Your task to perform on an android device: change timer sound Image 0: 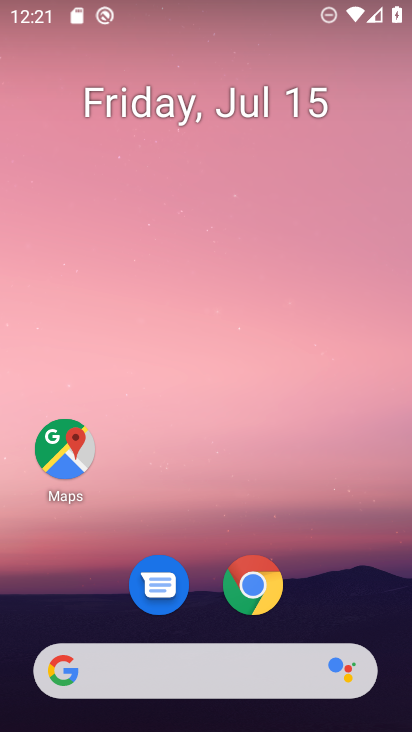
Step 0: drag from (230, 498) to (287, 32)
Your task to perform on an android device: change timer sound Image 1: 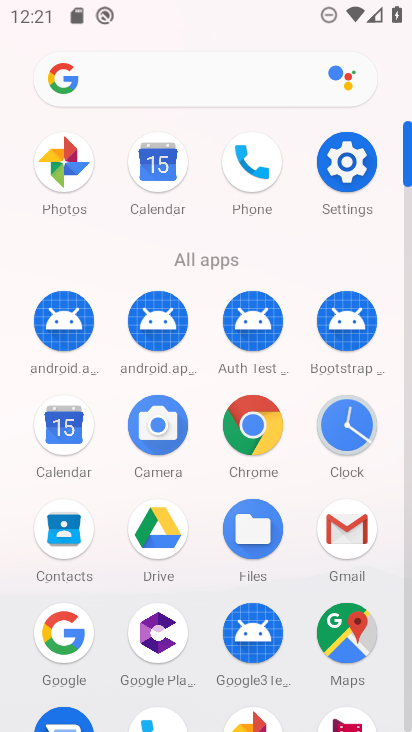
Step 1: click (345, 429)
Your task to perform on an android device: change timer sound Image 2: 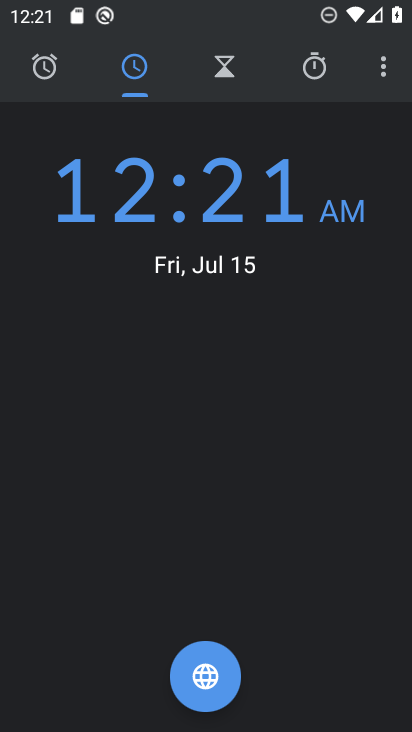
Step 2: click (381, 61)
Your task to perform on an android device: change timer sound Image 3: 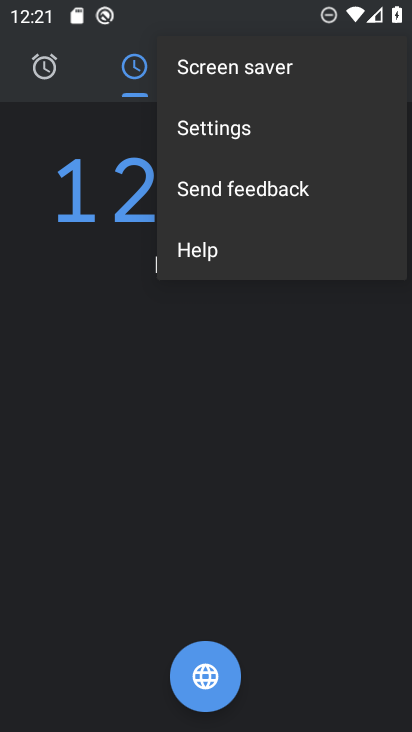
Step 3: click (239, 132)
Your task to perform on an android device: change timer sound Image 4: 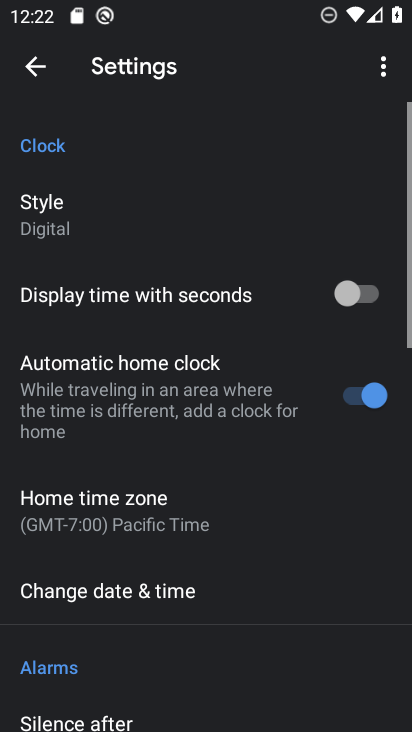
Step 4: drag from (266, 590) to (275, 58)
Your task to perform on an android device: change timer sound Image 5: 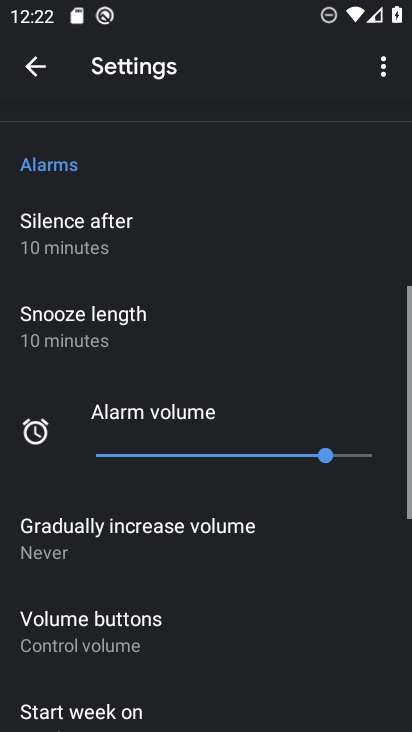
Step 5: drag from (246, 486) to (241, 155)
Your task to perform on an android device: change timer sound Image 6: 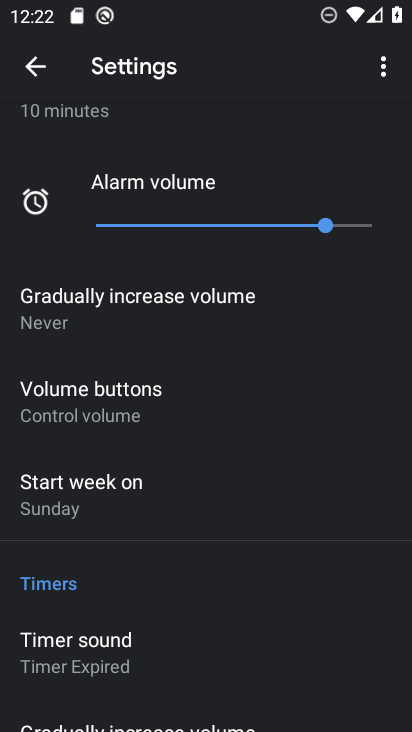
Step 6: click (96, 642)
Your task to perform on an android device: change timer sound Image 7: 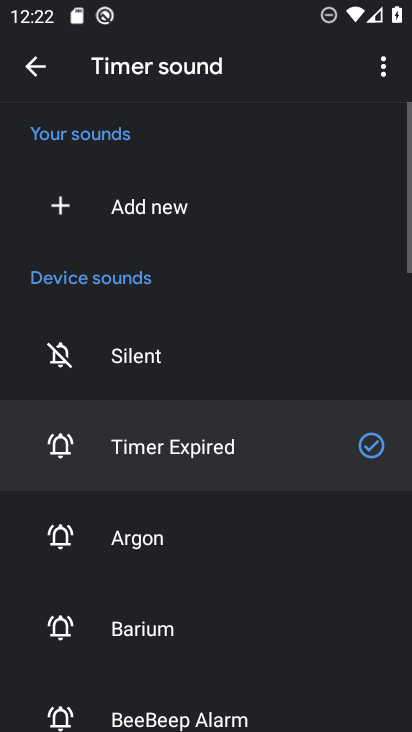
Step 7: click (152, 547)
Your task to perform on an android device: change timer sound Image 8: 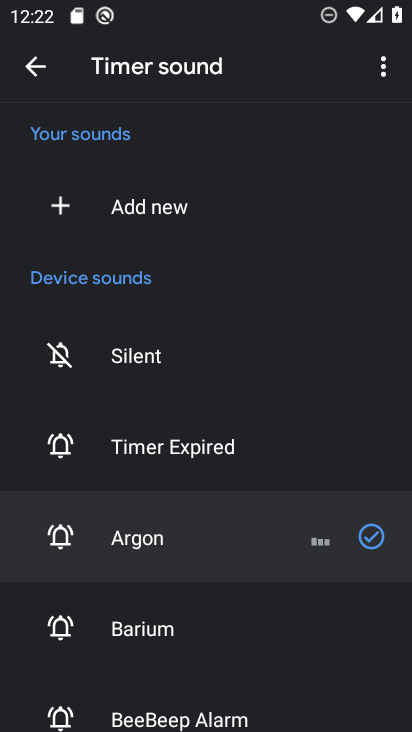
Step 8: task complete